Your task to perform on an android device: Open battery settings Image 0: 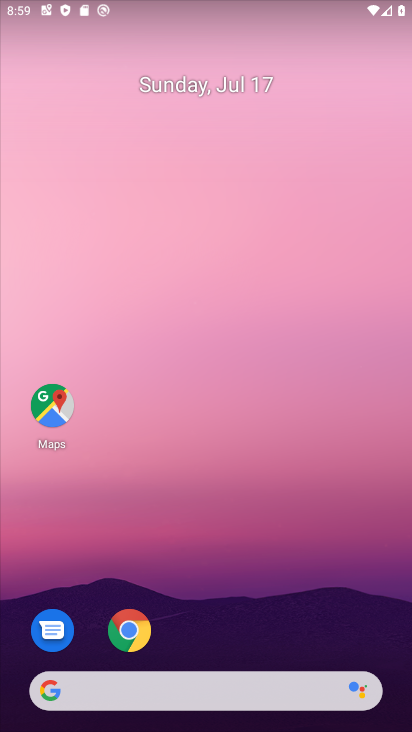
Step 0: drag from (242, 725) to (411, 183)
Your task to perform on an android device: Open battery settings Image 1: 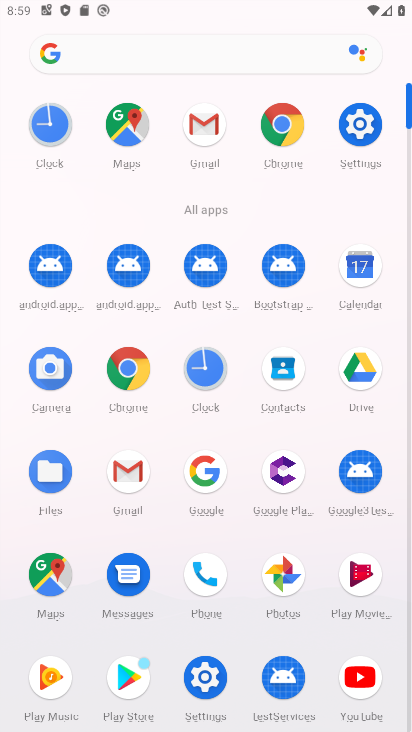
Step 1: click (372, 124)
Your task to perform on an android device: Open battery settings Image 2: 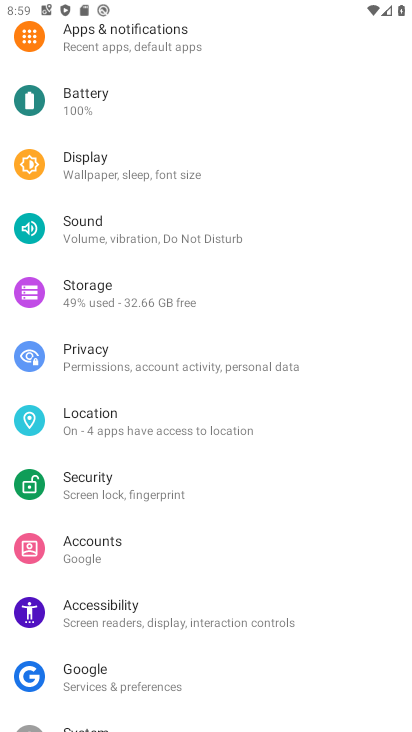
Step 2: click (81, 98)
Your task to perform on an android device: Open battery settings Image 3: 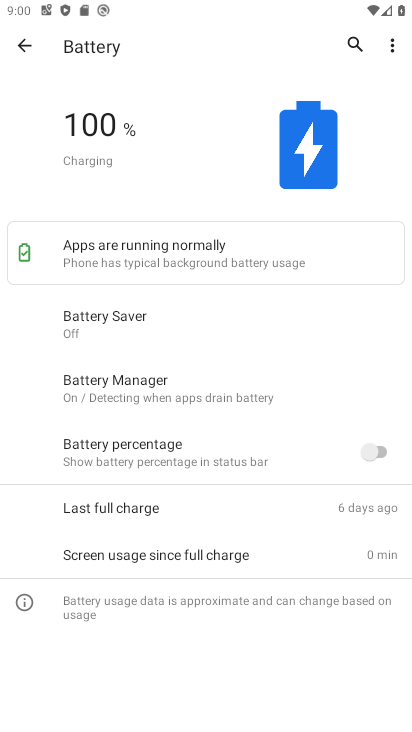
Step 3: task complete